Your task to perform on an android device: Show me the alarms in the clock app Image 0: 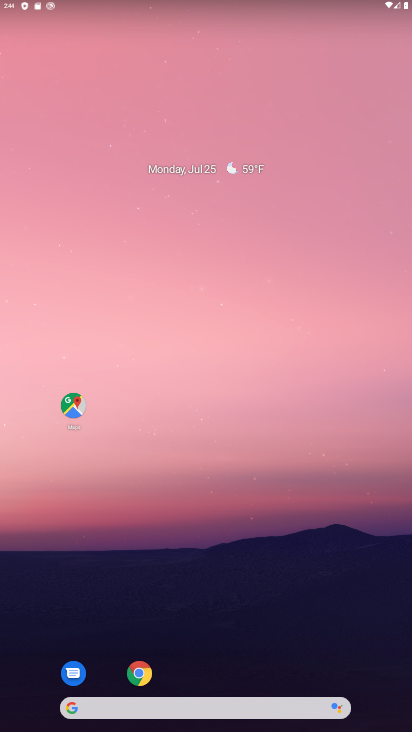
Step 0: drag from (223, 604) to (234, 212)
Your task to perform on an android device: Show me the alarms in the clock app Image 1: 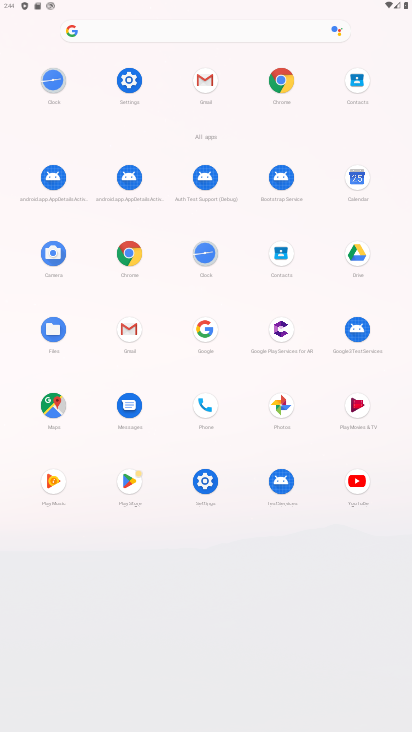
Step 1: click (56, 94)
Your task to perform on an android device: Show me the alarms in the clock app Image 2: 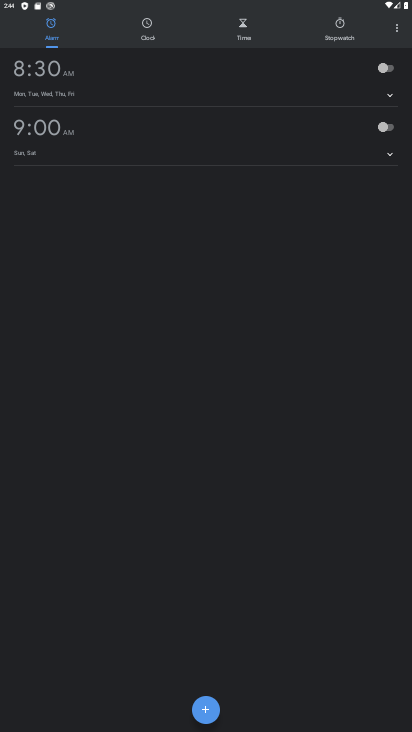
Step 2: task complete